Your task to perform on an android device: turn pop-ups off in chrome Image 0: 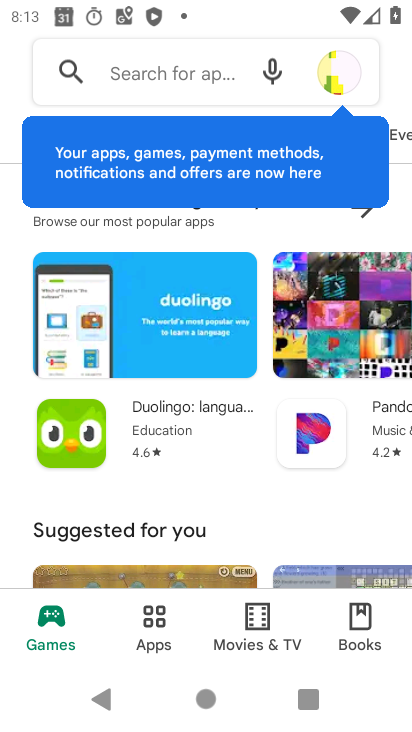
Step 0: press home button
Your task to perform on an android device: turn pop-ups off in chrome Image 1: 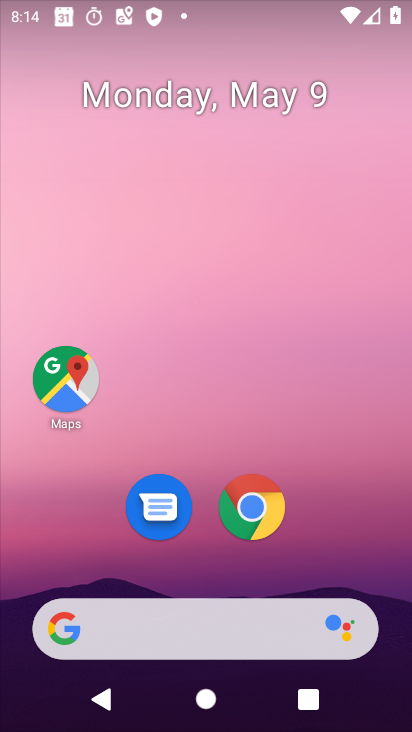
Step 1: drag from (248, 673) to (233, 177)
Your task to perform on an android device: turn pop-ups off in chrome Image 2: 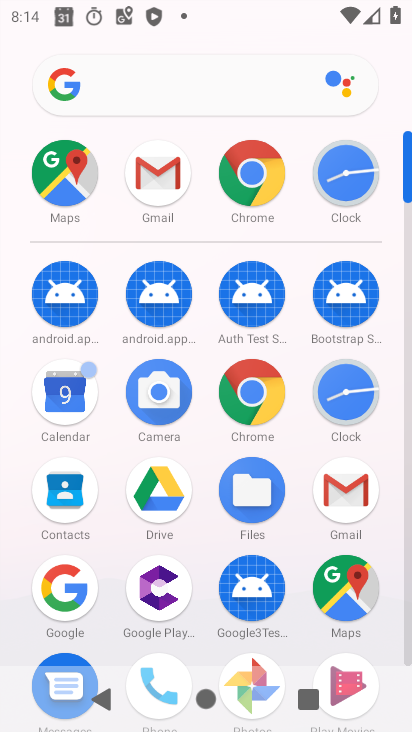
Step 2: click (247, 188)
Your task to perform on an android device: turn pop-ups off in chrome Image 3: 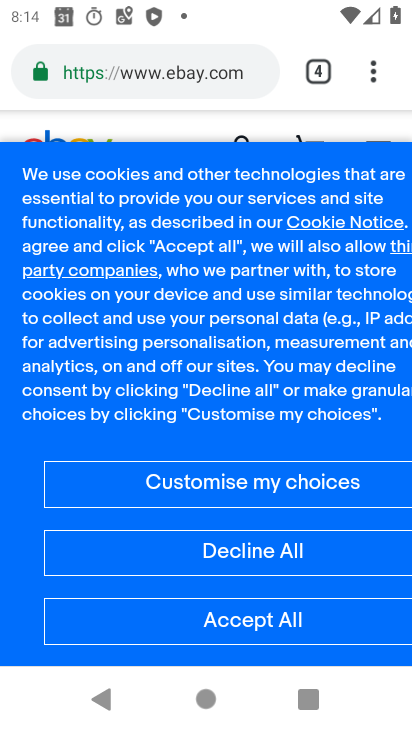
Step 3: click (359, 82)
Your task to perform on an android device: turn pop-ups off in chrome Image 4: 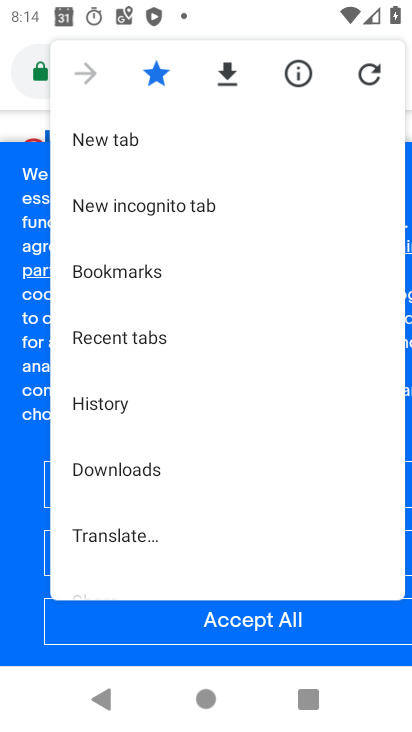
Step 4: drag from (154, 513) to (147, 226)
Your task to perform on an android device: turn pop-ups off in chrome Image 5: 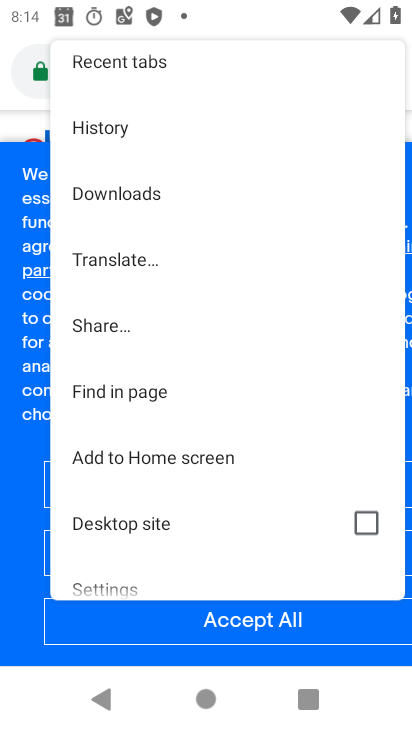
Step 5: click (96, 578)
Your task to perform on an android device: turn pop-ups off in chrome Image 6: 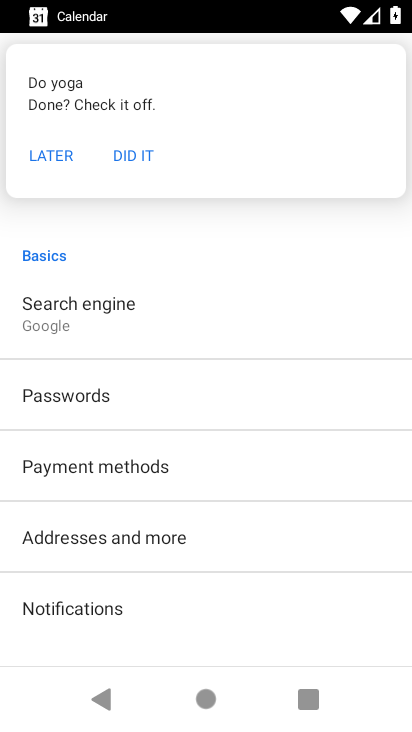
Step 6: drag from (110, 593) to (113, 443)
Your task to perform on an android device: turn pop-ups off in chrome Image 7: 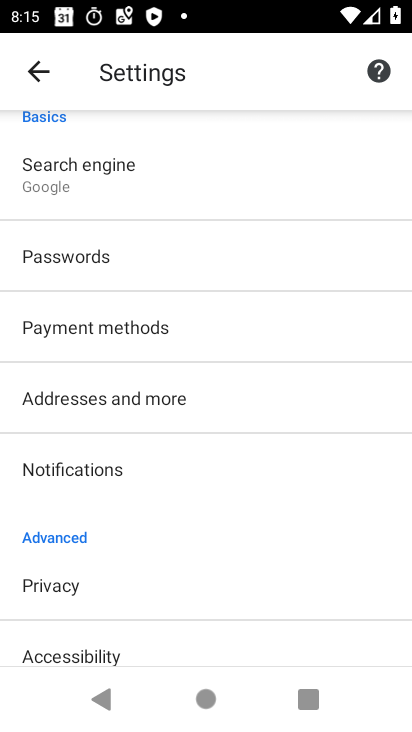
Step 7: drag from (147, 546) to (189, 353)
Your task to perform on an android device: turn pop-ups off in chrome Image 8: 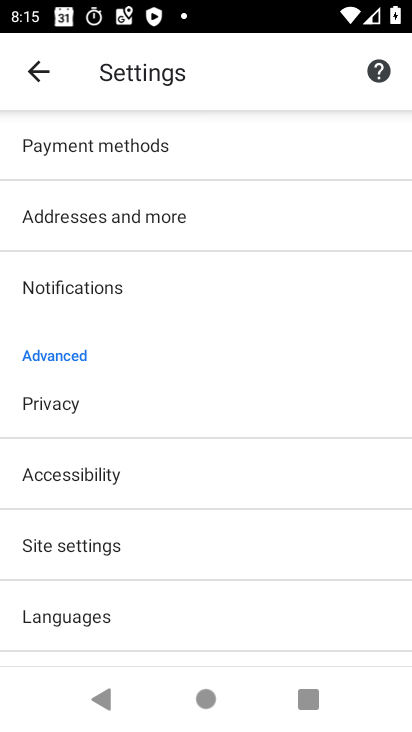
Step 8: click (90, 540)
Your task to perform on an android device: turn pop-ups off in chrome Image 9: 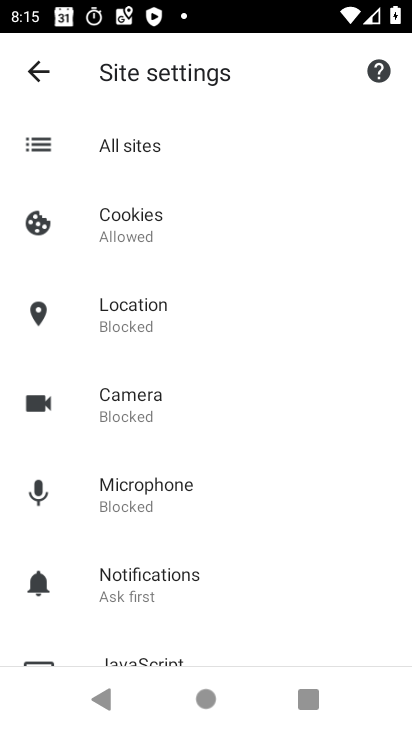
Step 9: drag from (153, 558) to (201, 381)
Your task to perform on an android device: turn pop-ups off in chrome Image 10: 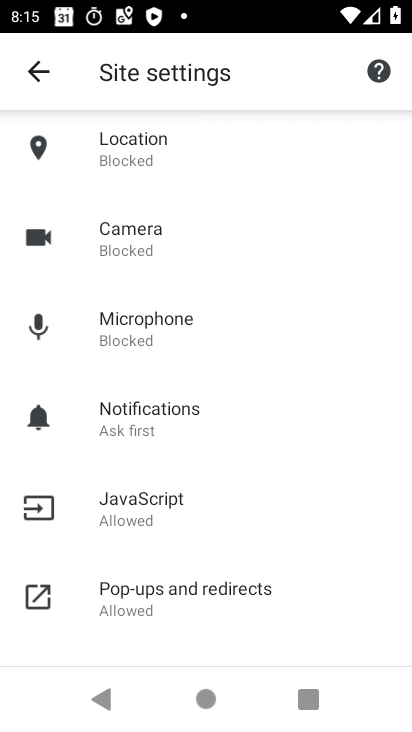
Step 10: click (133, 590)
Your task to perform on an android device: turn pop-ups off in chrome Image 11: 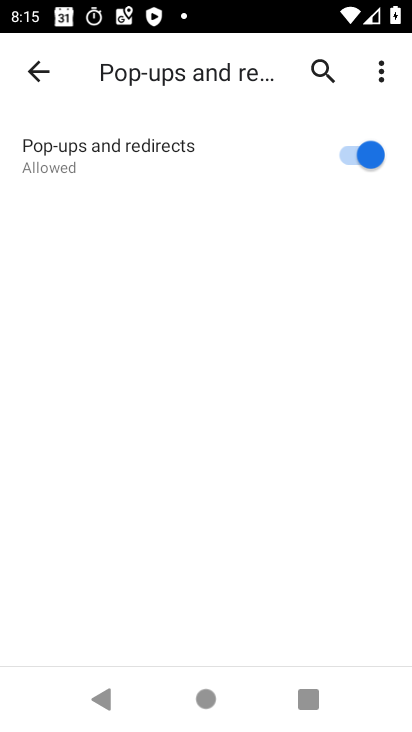
Step 11: click (354, 152)
Your task to perform on an android device: turn pop-ups off in chrome Image 12: 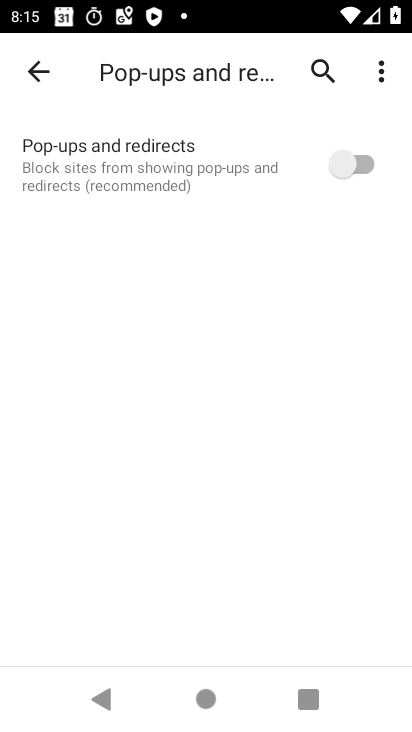
Step 12: task complete